Your task to perform on an android device: Add "asus zenbook" to the cart on amazon.com Image 0: 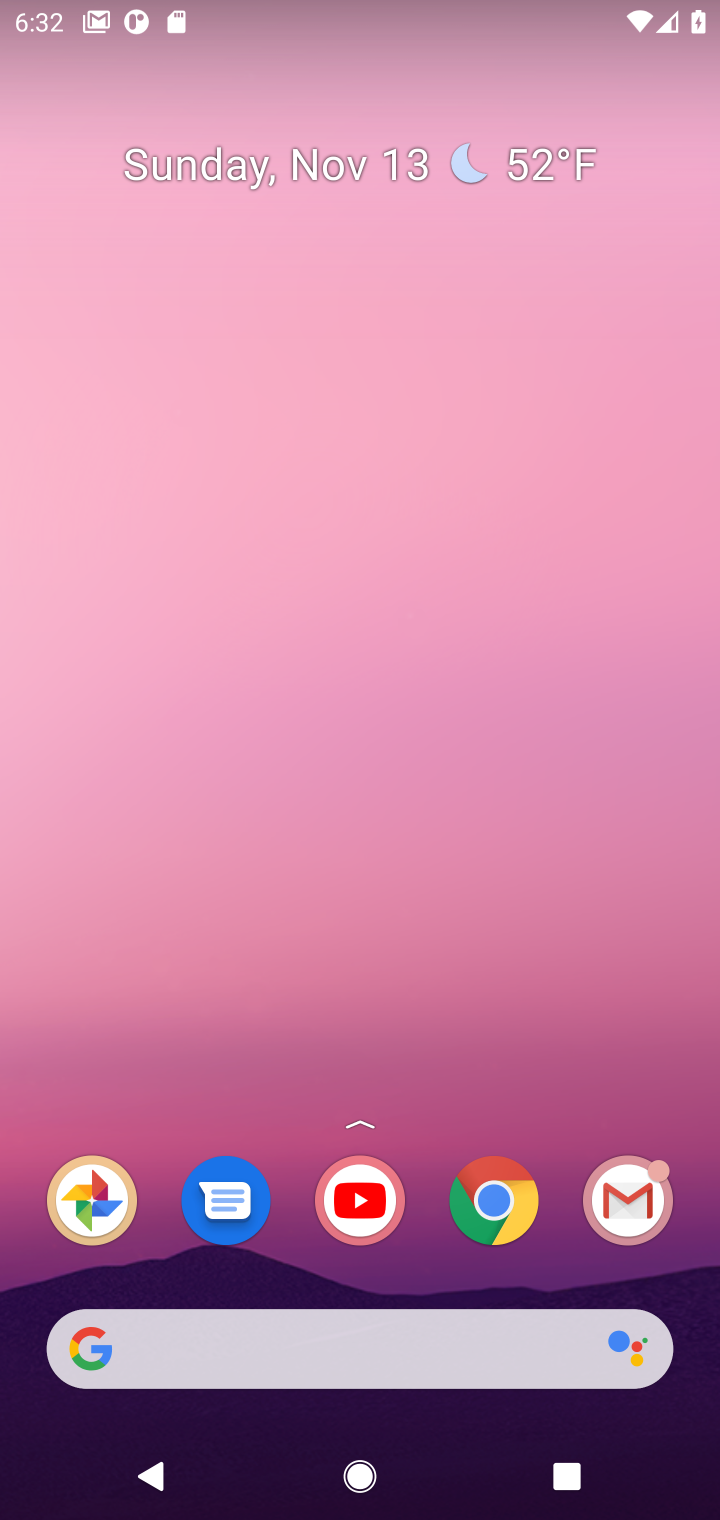
Step 0: click (491, 1206)
Your task to perform on an android device: Add "asus zenbook" to the cart on amazon.com Image 1: 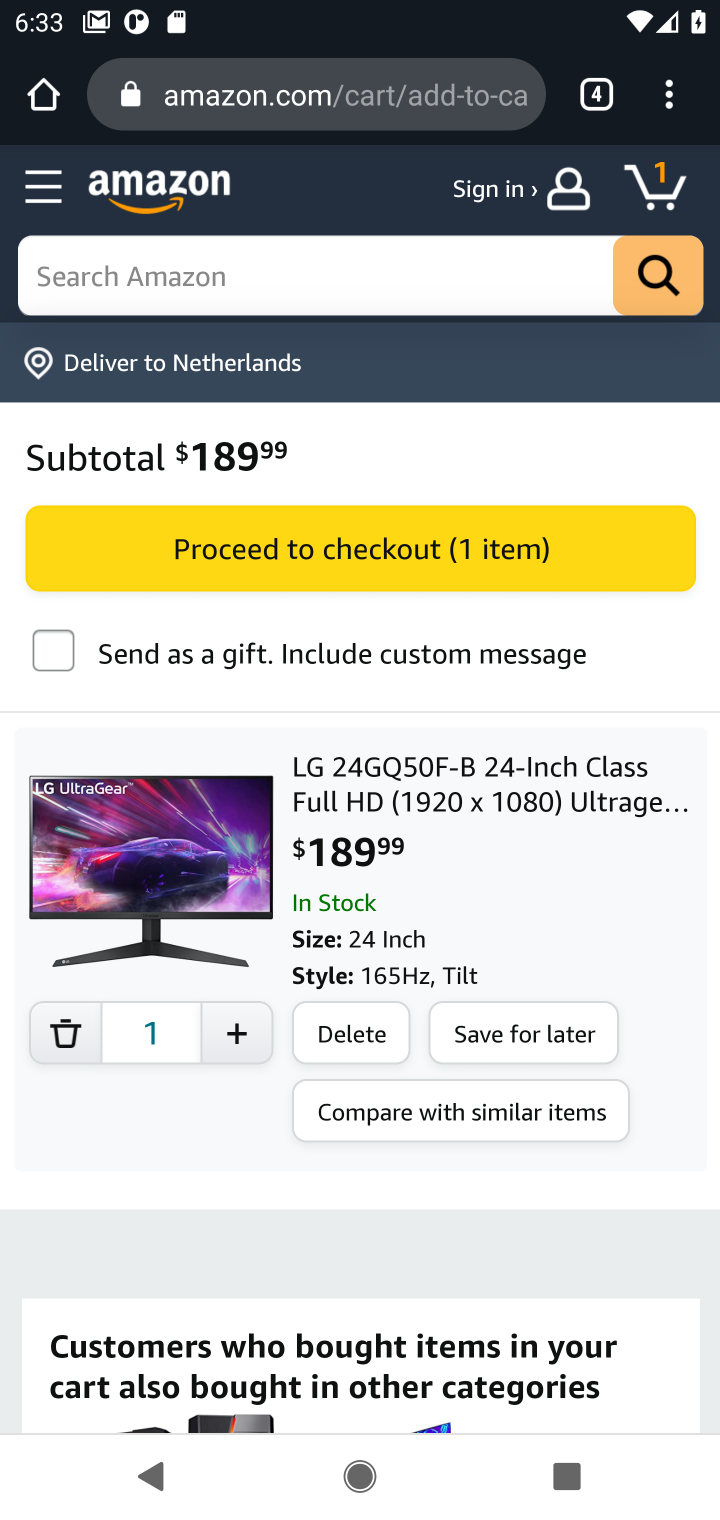
Step 1: click (242, 280)
Your task to perform on an android device: Add "asus zenbook" to the cart on amazon.com Image 2: 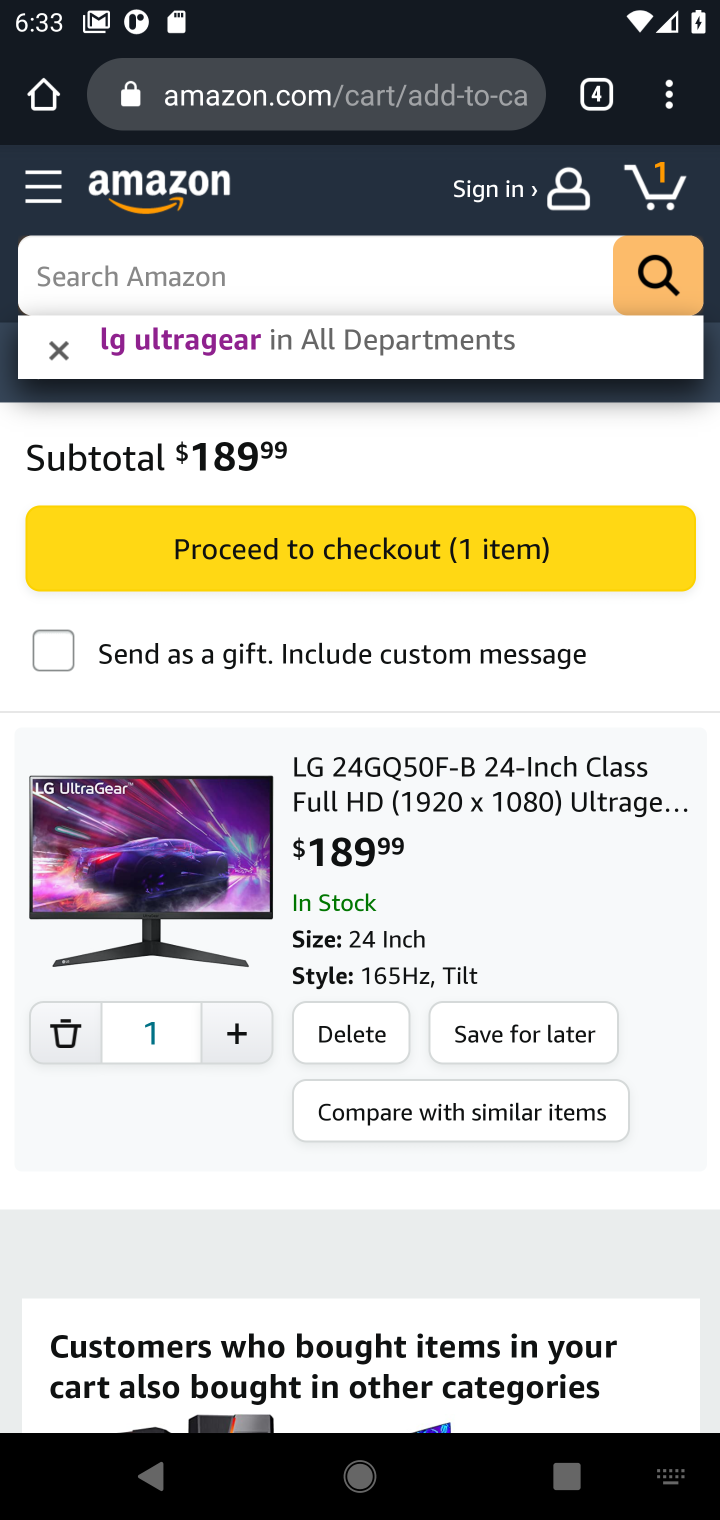
Step 2: type "asus zenbook"
Your task to perform on an android device: Add "asus zenbook" to the cart on amazon.com Image 3: 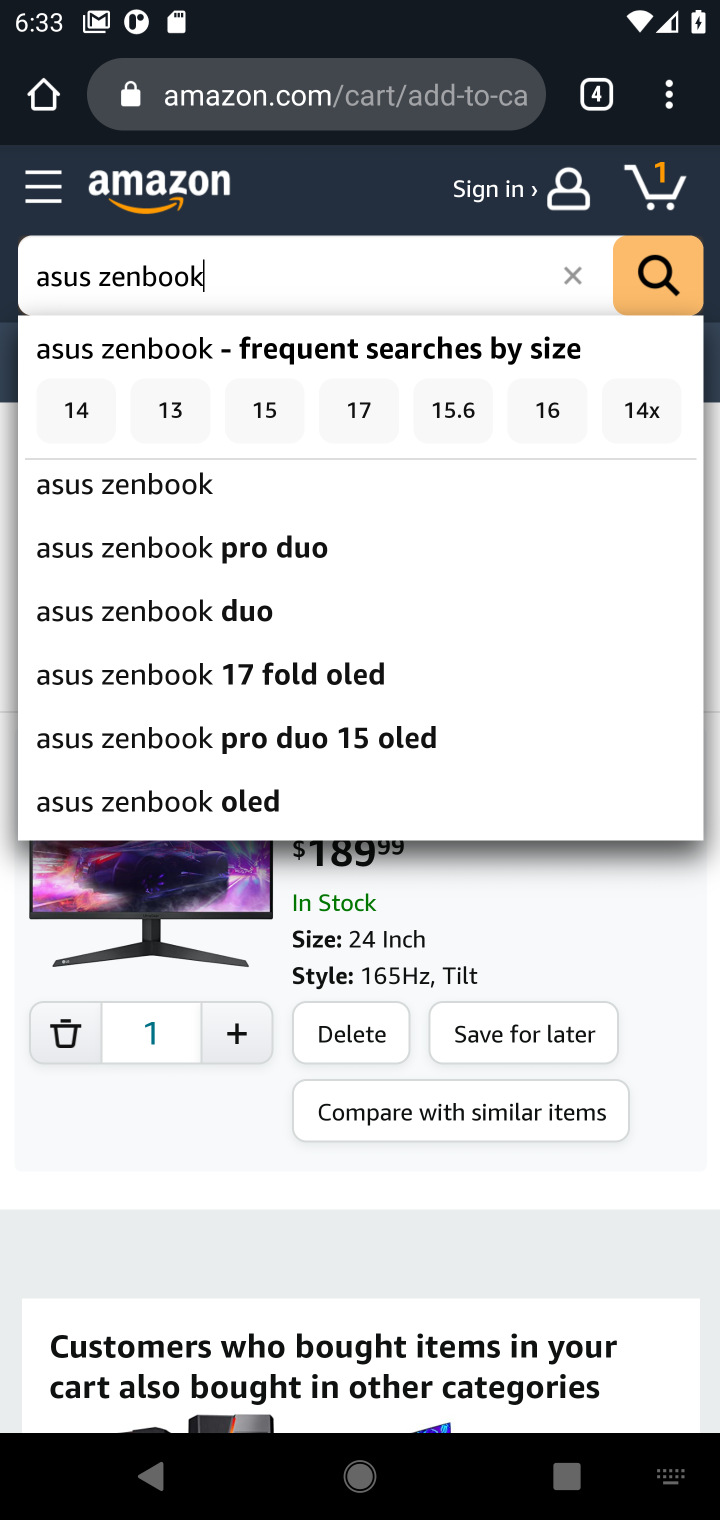
Step 3: click (123, 346)
Your task to perform on an android device: Add "asus zenbook" to the cart on amazon.com Image 4: 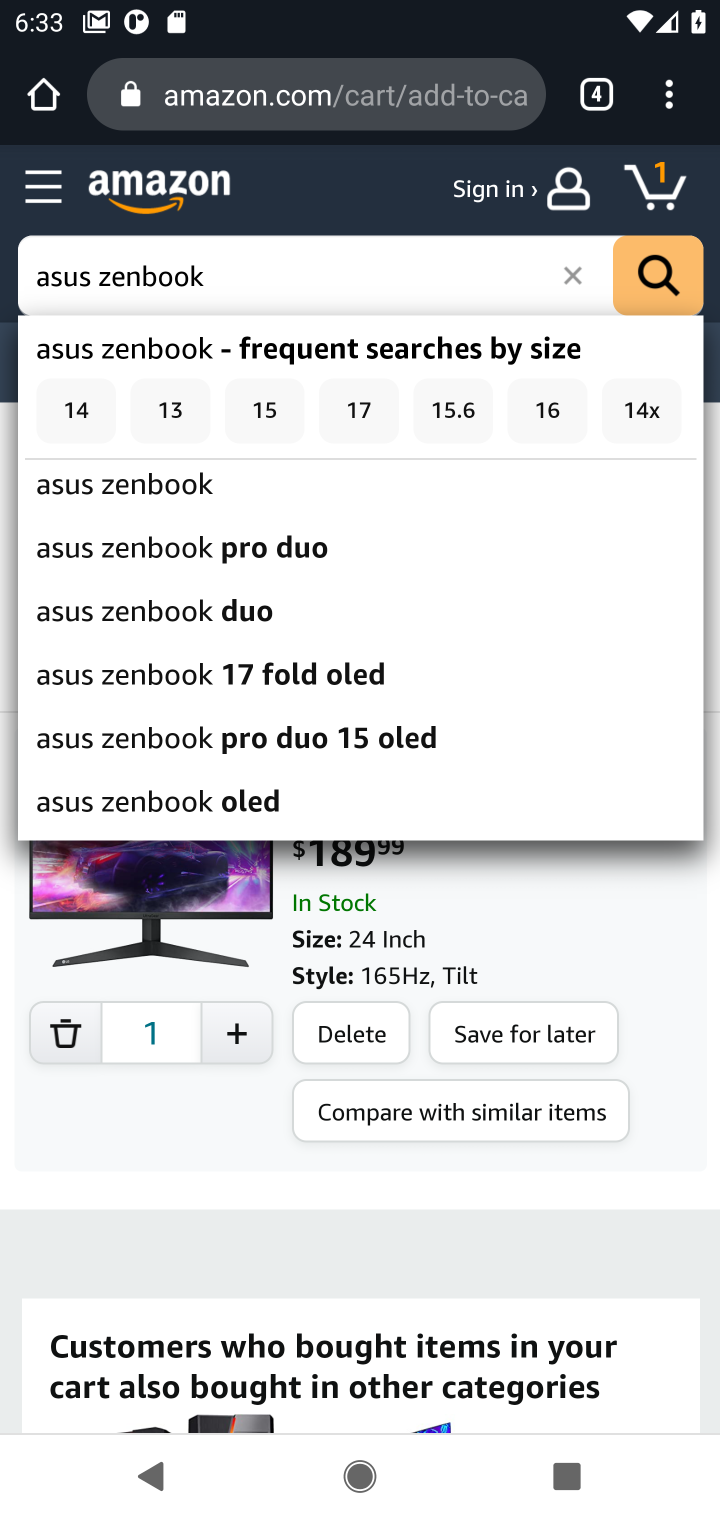
Step 4: click (123, 346)
Your task to perform on an android device: Add "asus zenbook" to the cart on amazon.com Image 5: 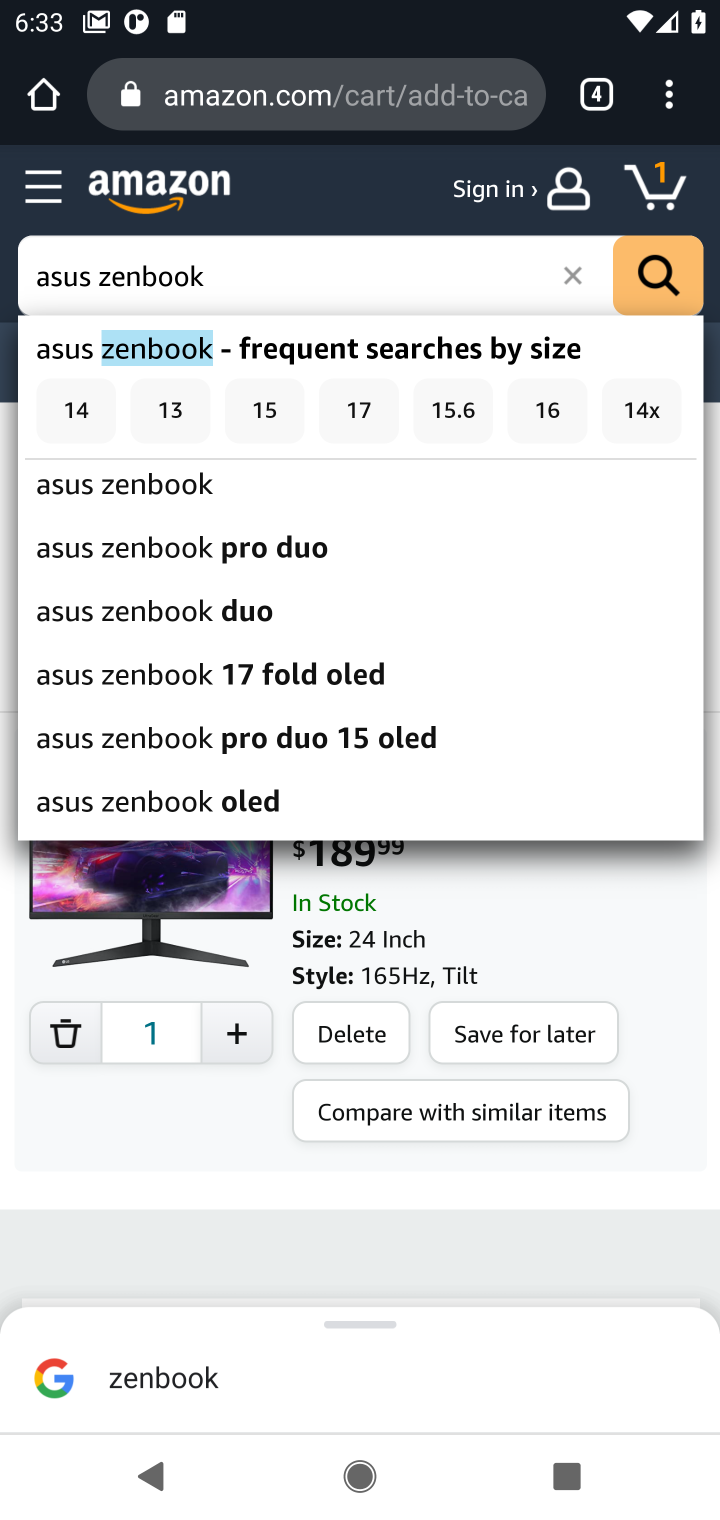
Step 5: click (191, 473)
Your task to perform on an android device: Add "asus zenbook" to the cart on amazon.com Image 6: 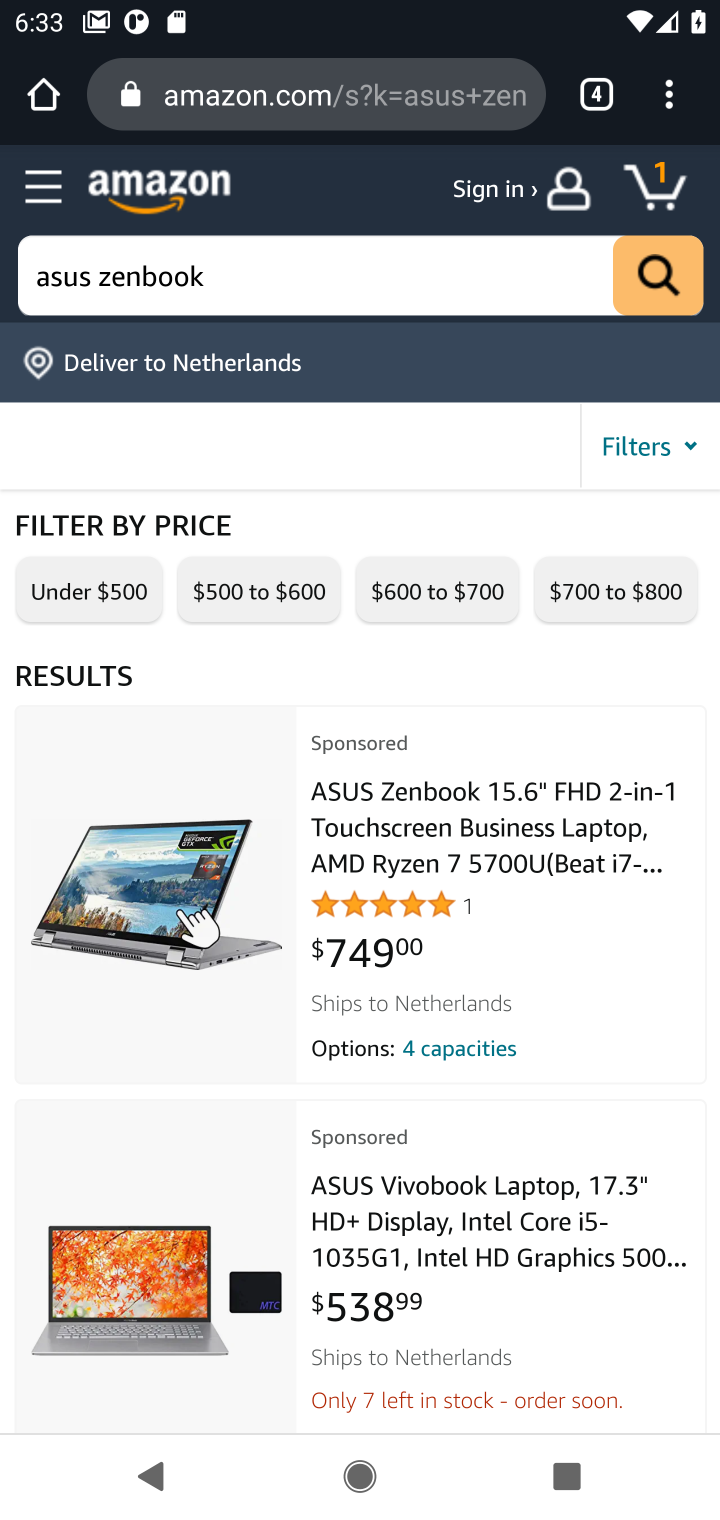
Step 6: click (441, 855)
Your task to perform on an android device: Add "asus zenbook" to the cart on amazon.com Image 7: 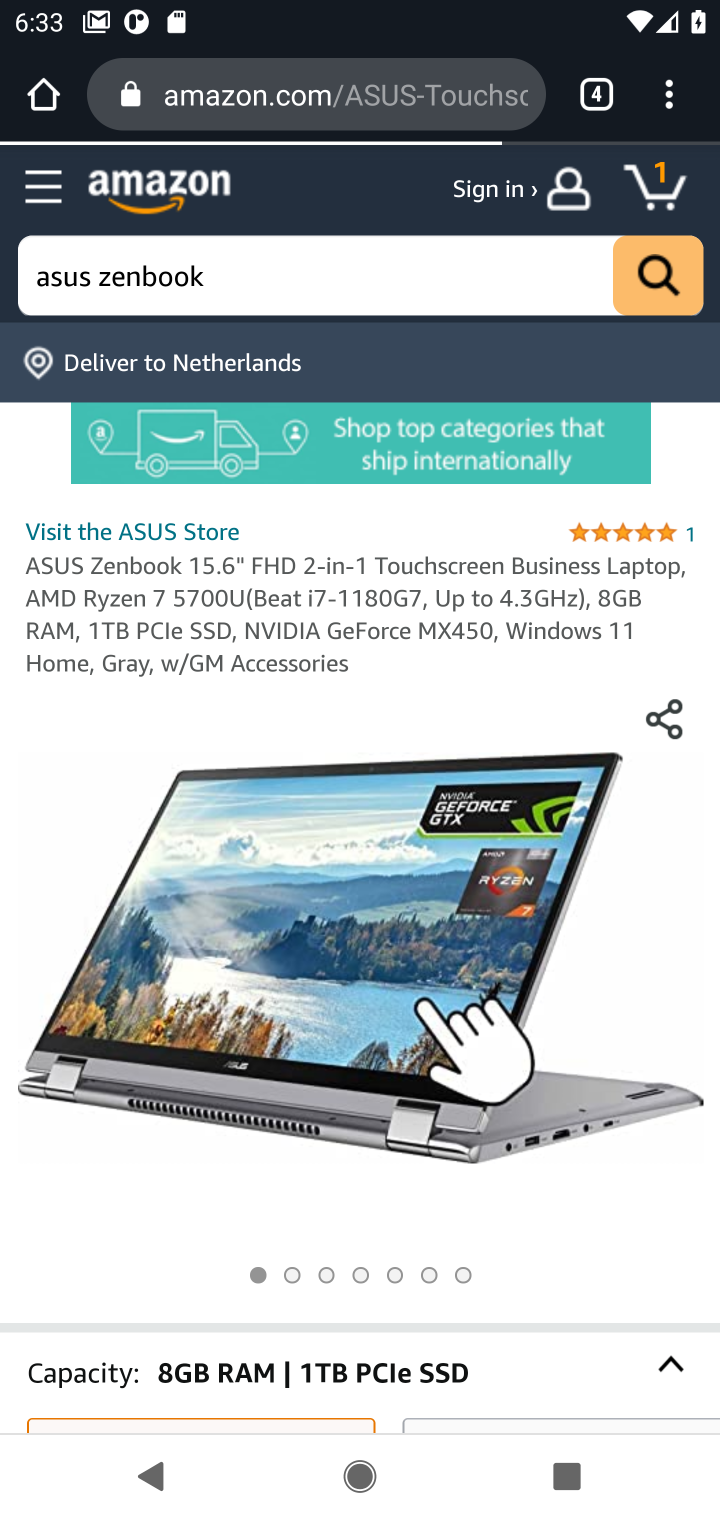
Step 7: drag from (618, 1214) to (673, 183)
Your task to perform on an android device: Add "asus zenbook" to the cart on amazon.com Image 8: 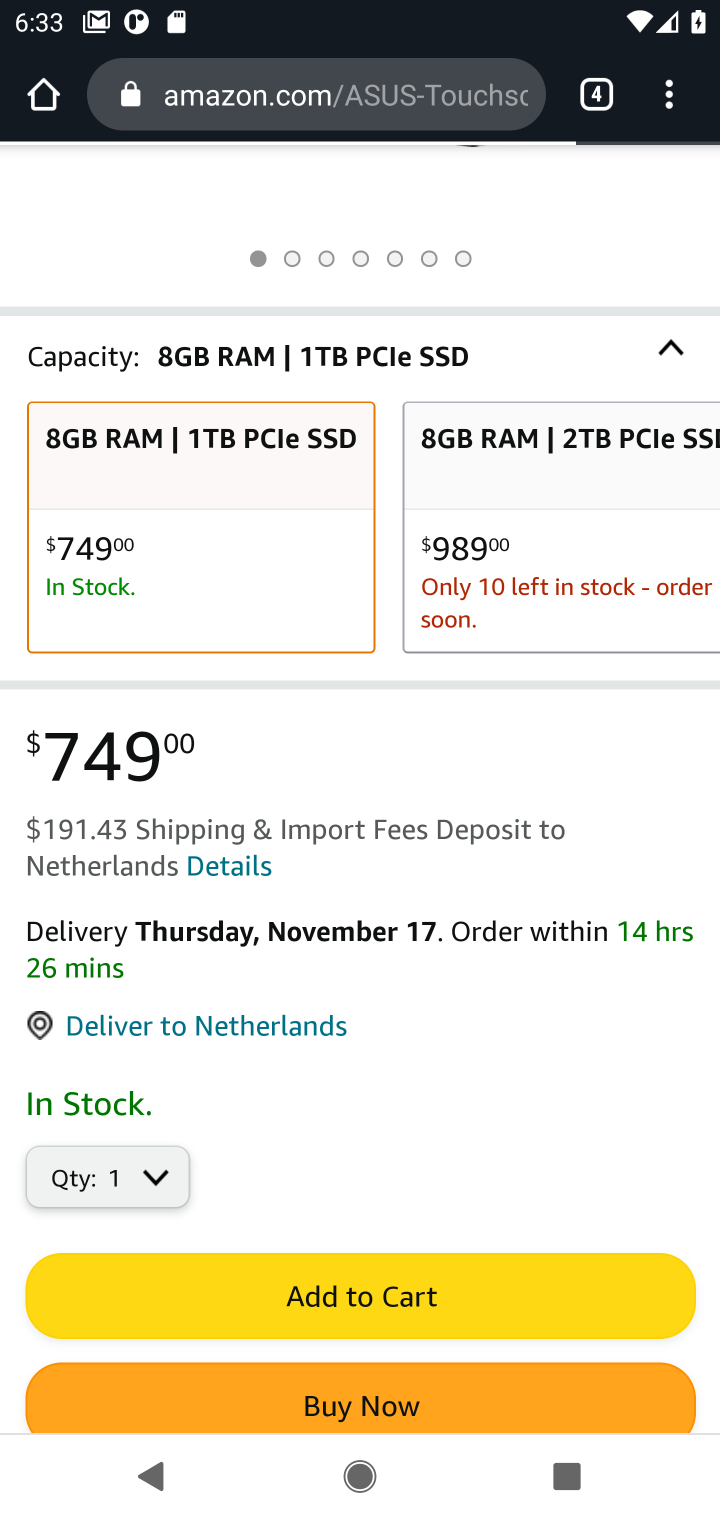
Step 8: click (518, 440)
Your task to perform on an android device: Add "asus zenbook" to the cart on amazon.com Image 9: 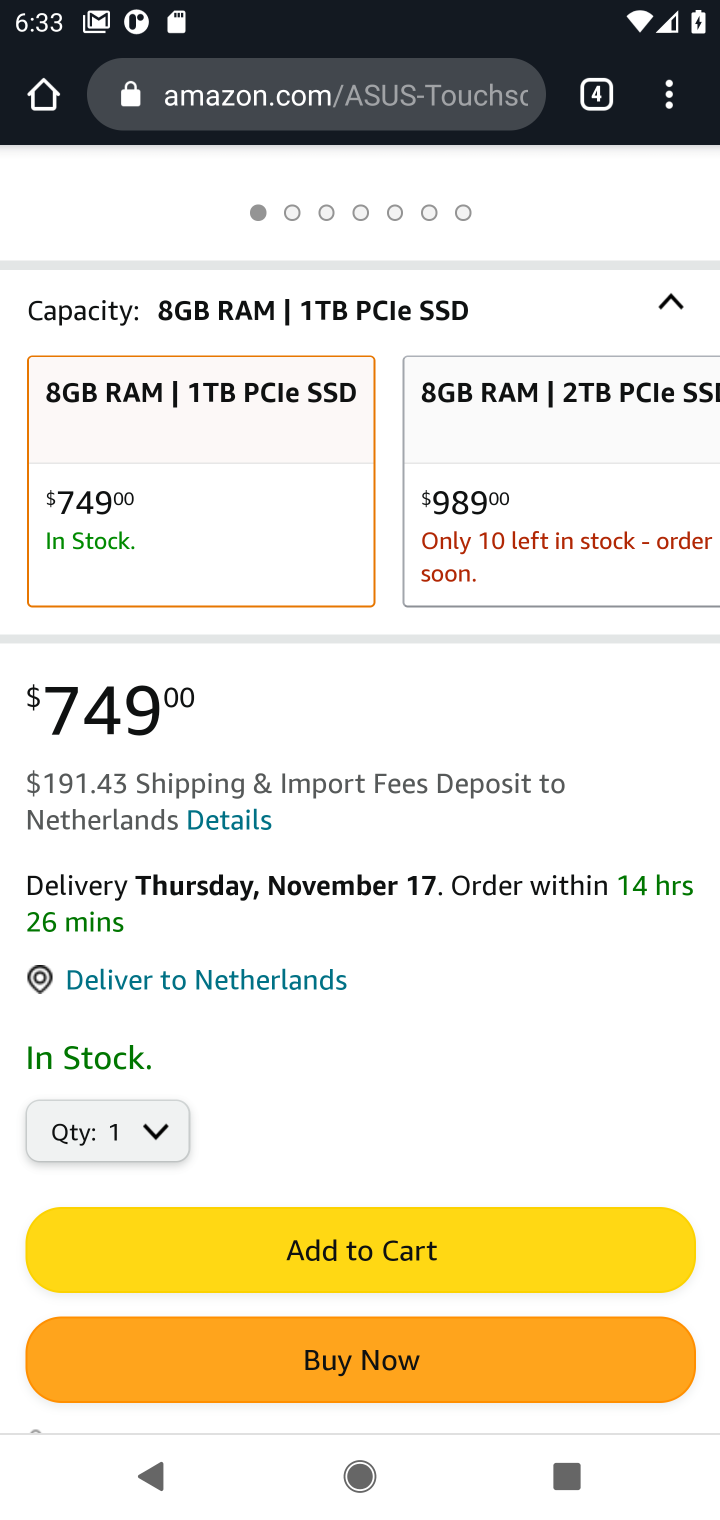
Step 9: click (347, 1233)
Your task to perform on an android device: Add "asus zenbook" to the cart on amazon.com Image 10: 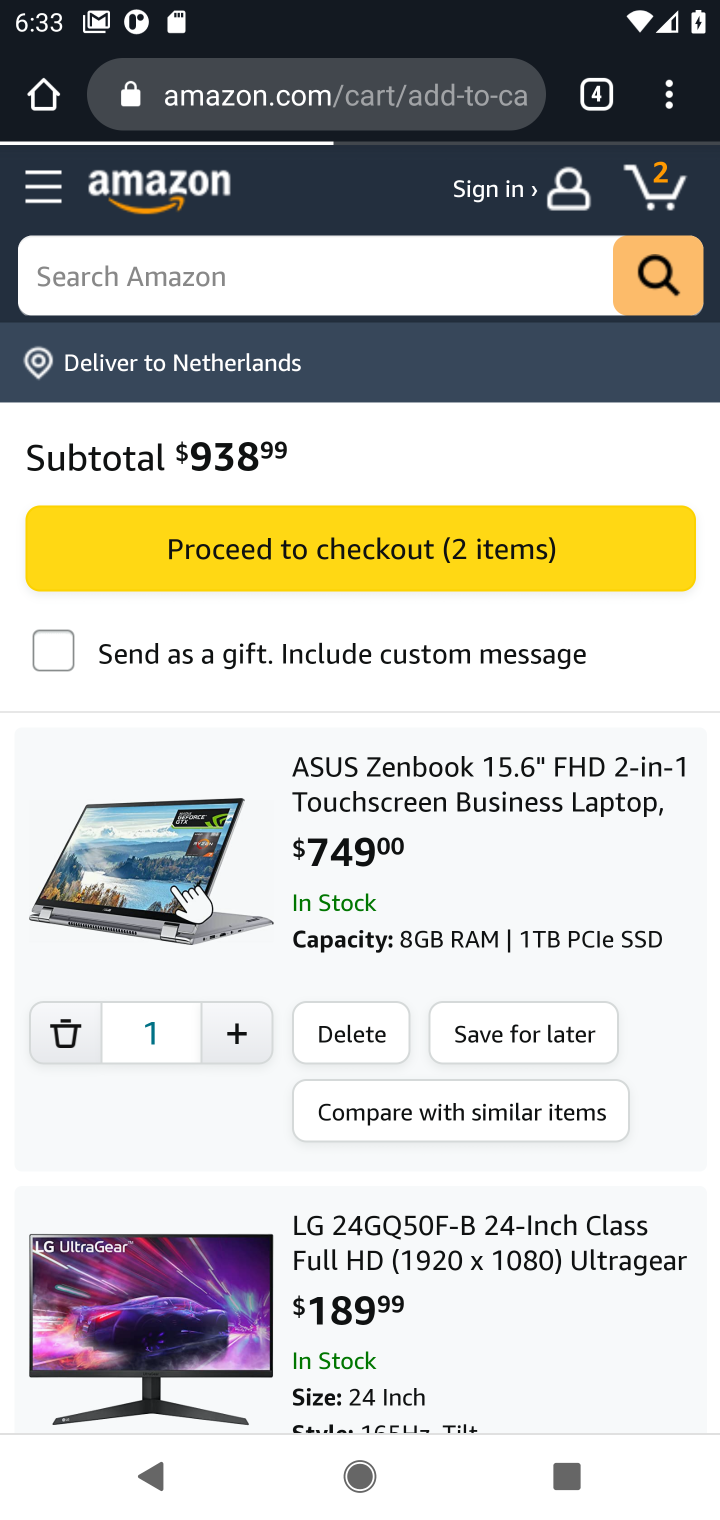
Step 10: task complete